Your task to perform on an android device: Turn on the flashlight Image 0: 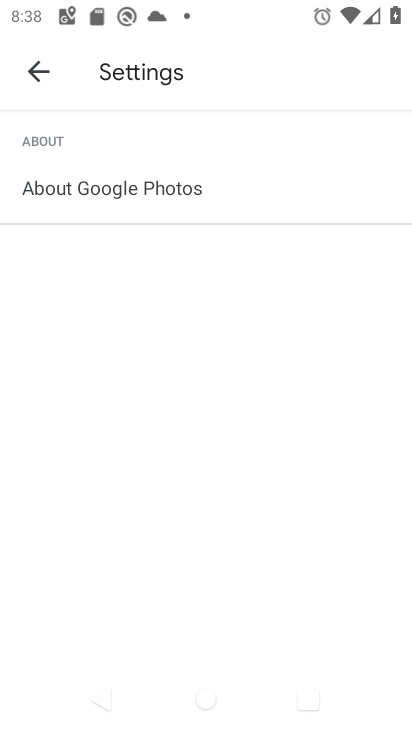
Step 0: press home button
Your task to perform on an android device: Turn on the flashlight Image 1: 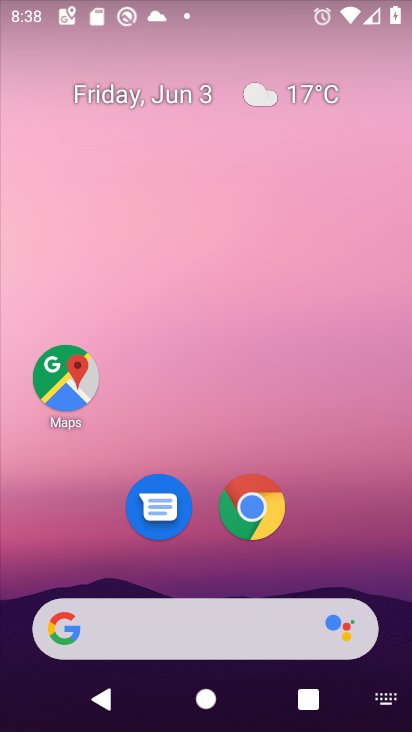
Step 1: task complete